Your task to perform on an android device: Open eBay Image 0: 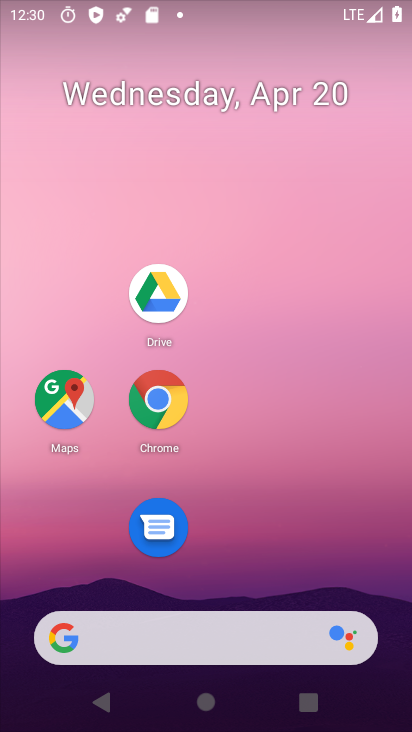
Step 0: drag from (314, 662) to (230, 250)
Your task to perform on an android device: Open eBay Image 1: 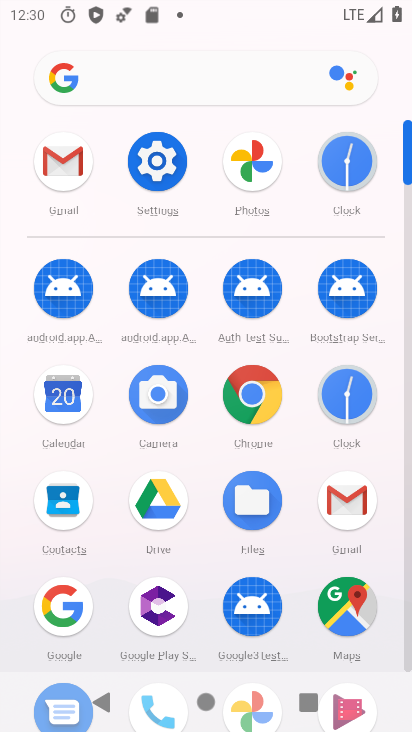
Step 1: click (255, 396)
Your task to perform on an android device: Open eBay Image 2: 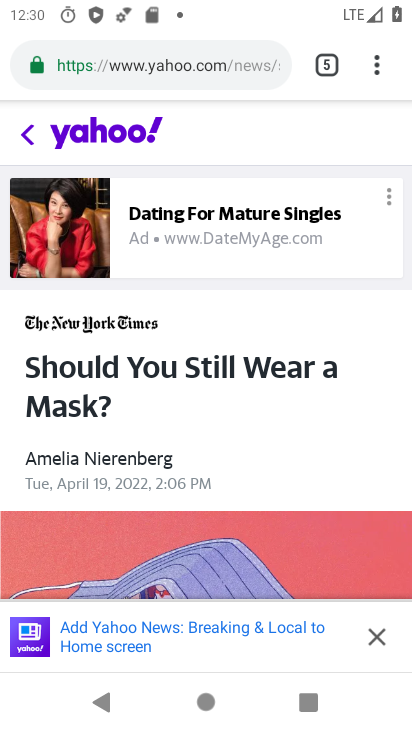
Step 2: click (221, 59)
Your task to perform on an android device: Open eBay Image 3: 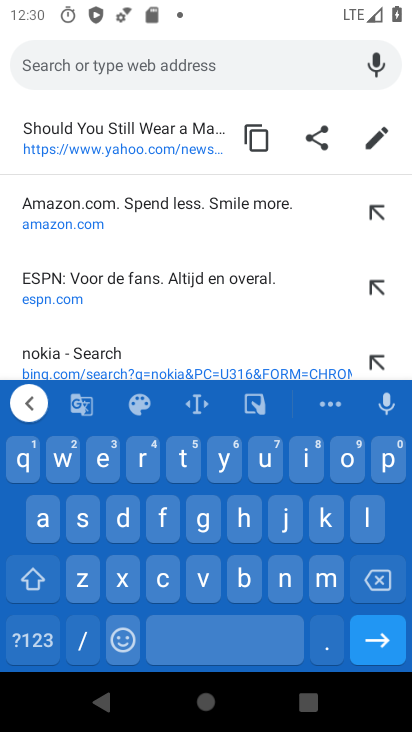
Step 3: click (102, 463)
Your task to perform on an android device: Open eBay Image 4: 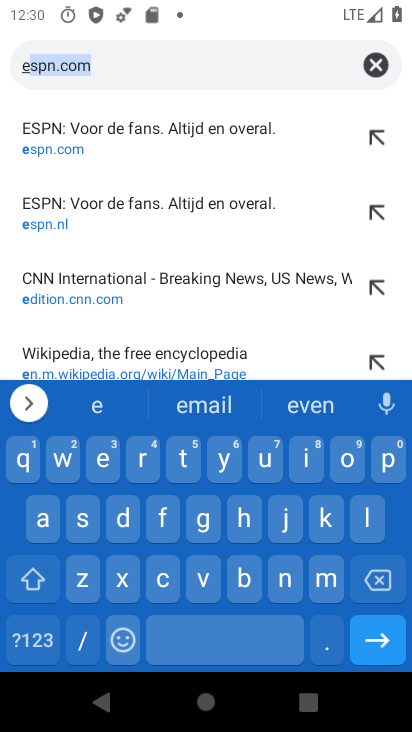
Step 4: click (242, 582)
Your task to perform on an android device: Open eBay Image 5: 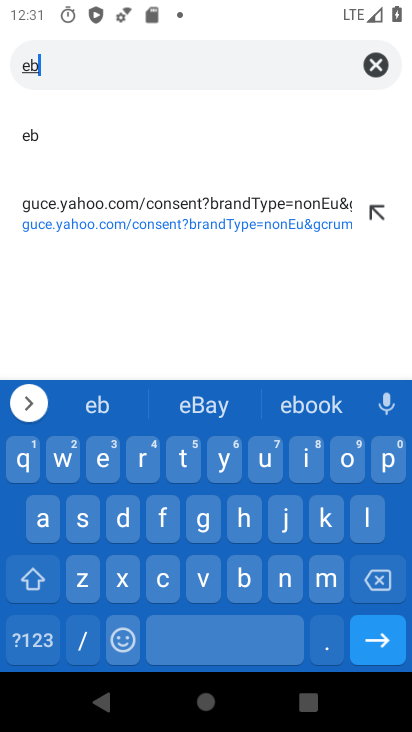
Step 5: click (39, 528)
Your task to perform on an android device: Open eBay Image 6: 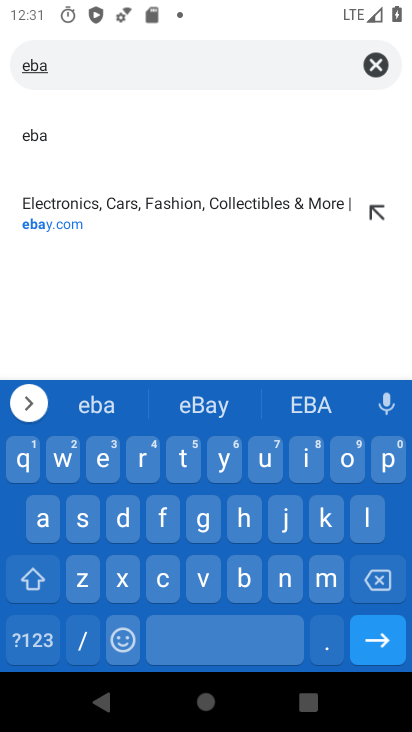
Step 6: click (224, 467)
Your task to perform on an android device: Open eBay Image 7: 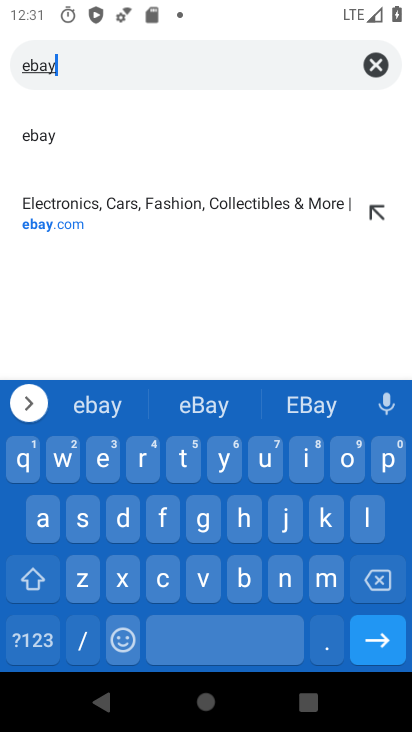
Step 7: click (378, 644)
Your task to perform on an android device: Open eBay Image 8: 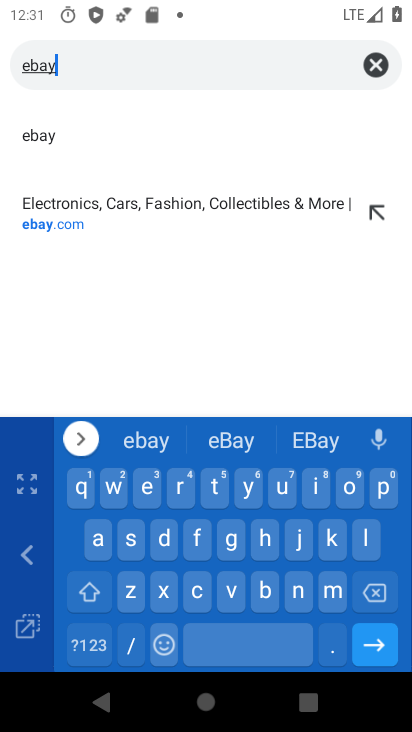
Step 8: click (376, 636)
Your task to perform on an android device: Open eBay Image 9: 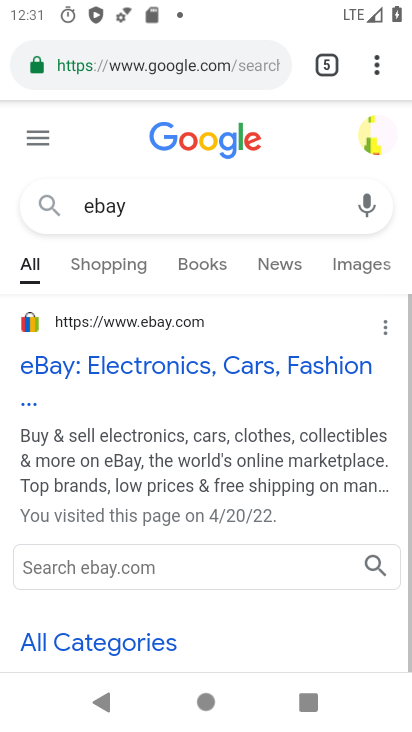
Step 9: click (88, 363)
Your task to perform on an android device: Open eBay Image 10: 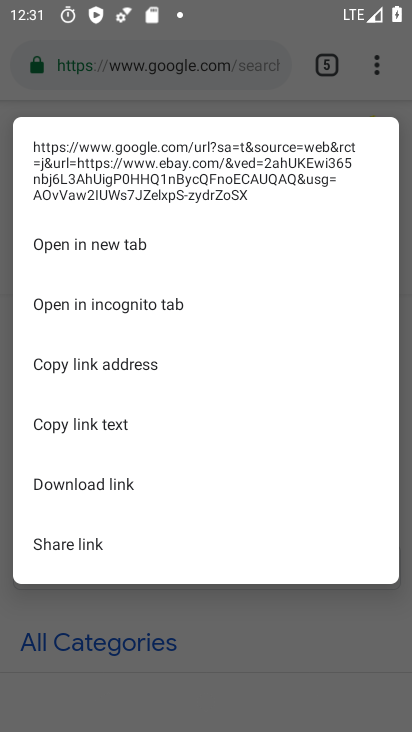
Step 10: click (302, 631)
Your task to perform on an android device: Open eBay Image 11: 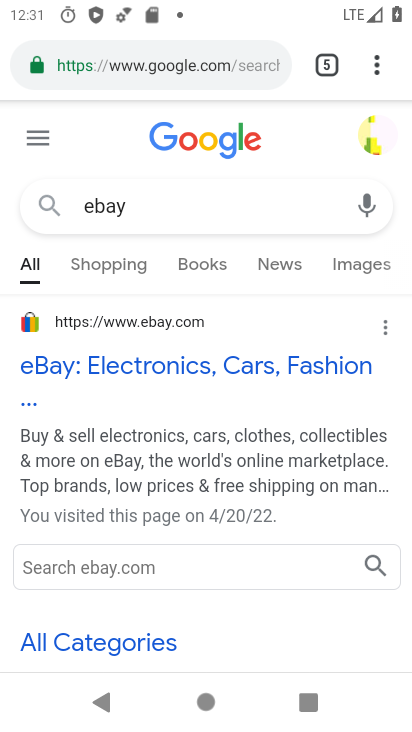
Step 11: click (114, 359)
Your task to perform on an android device: Open eBay Image 12: 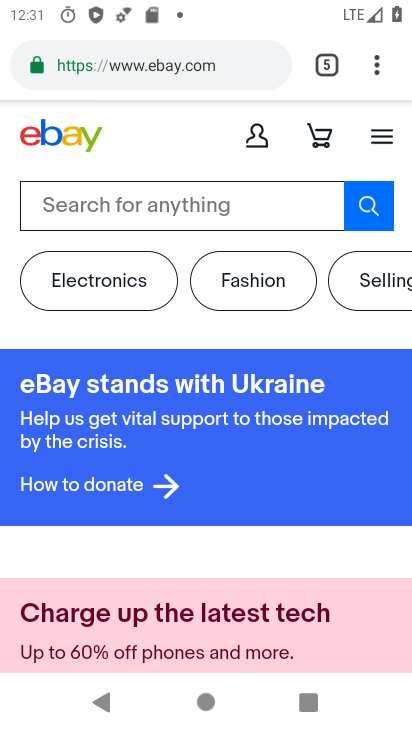
Step 12: task complete